Your task to perform on an android device: Is it going to rain tomorrow? Image 0: 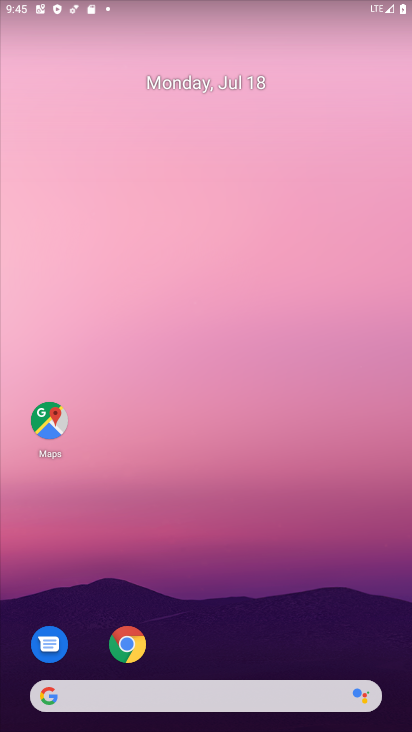
Step 0: click (226, 700)
Your task to perform on an android device: Is it going to rain tomorrow? Image 1: 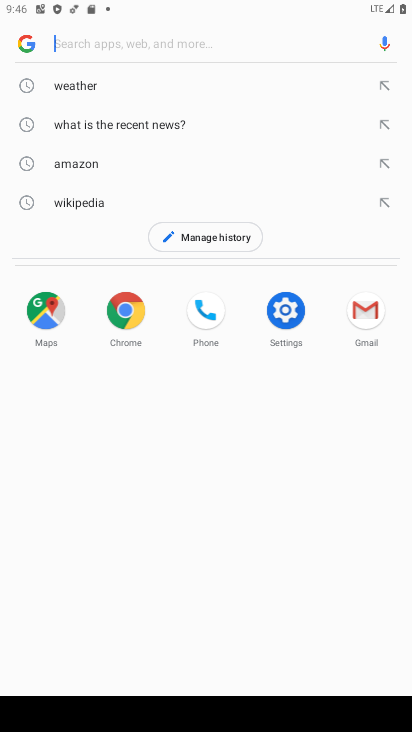
Step 1: click (99, 92)
Your task to perform on an android device: Is it going to rain tomorrow? Image 2: 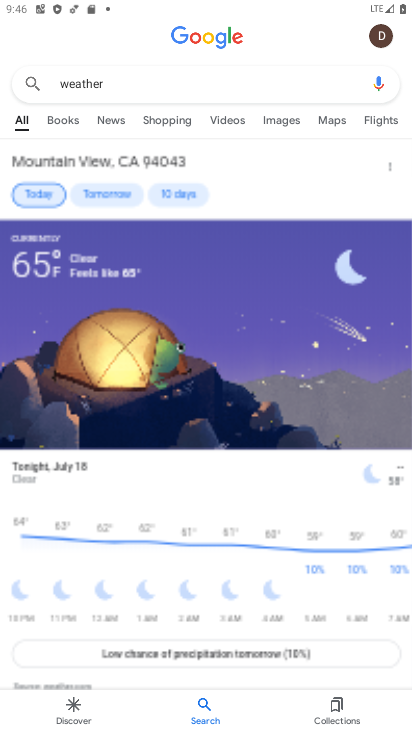
Step 2: click (103, 192)
Your task to perform on an android device: Is it going to rain tomorrow? Image 3: 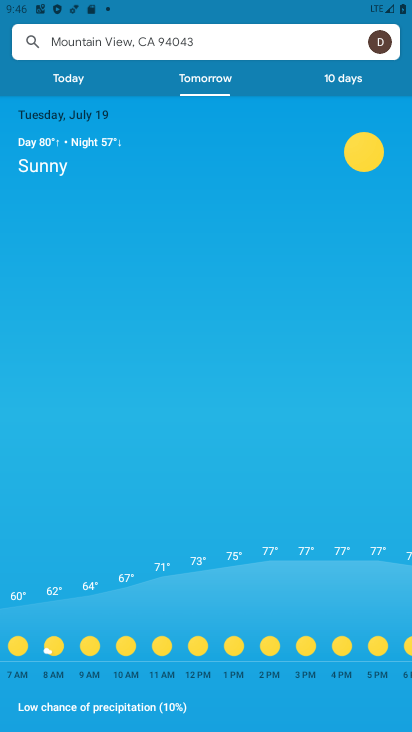
Step 3: task complete